Your task to perform on an android device: open device folders in google photos Image 0: 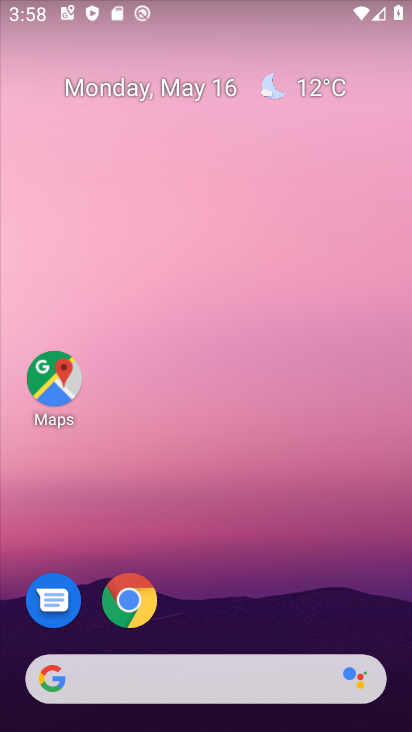
Step 0: drag from (220, 661) to (251, 302)
Your task to perform on an android device: open device folders in google photos Image 1: 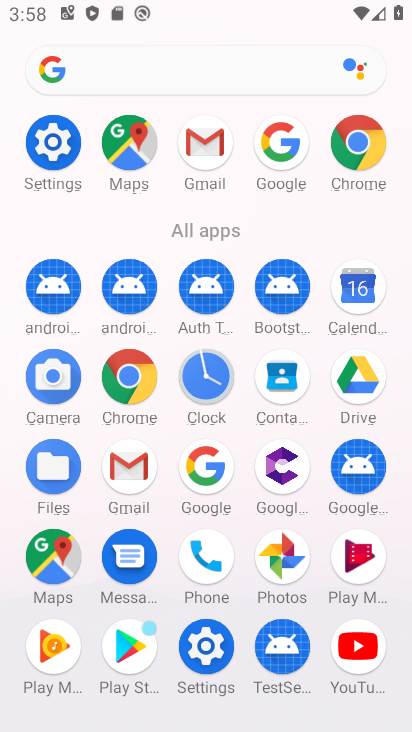
Step 1: click (293, 556)
Your task to perform on an android device: open device folders in google photos Image 2: 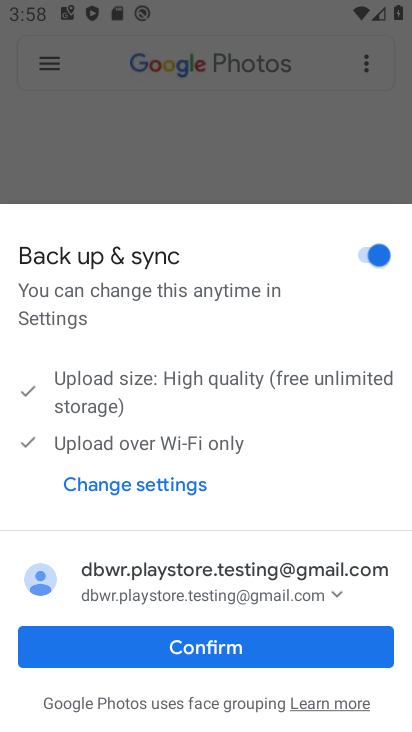
Step 2: click (59, 68)
Your task to perform on an android device: open device folders in google photos Image 3: 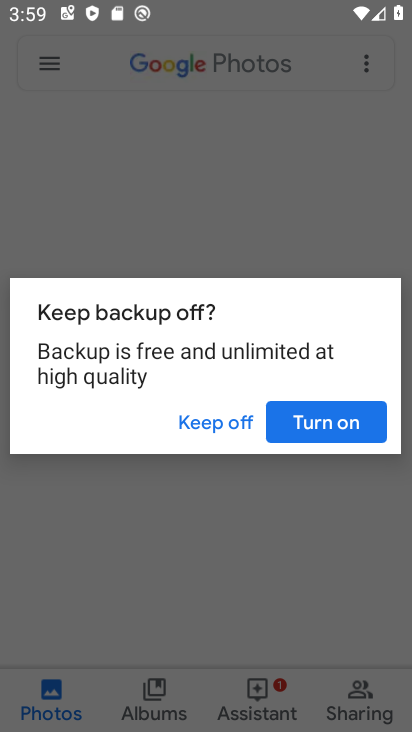
Step 3: click (293, 427)
Your task to perform on an android device: open device folders in google photos Image 4: 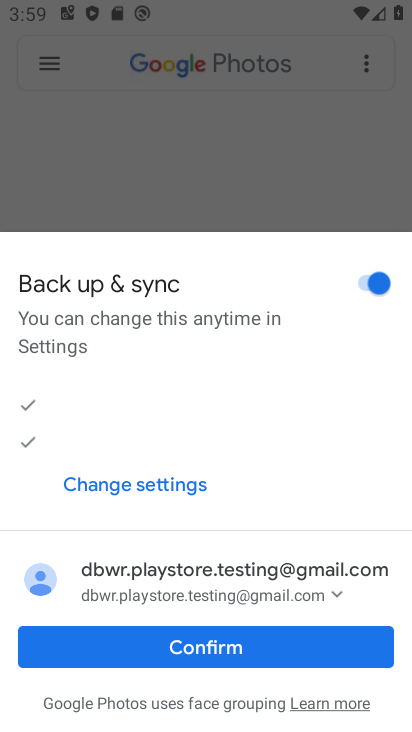
Step 4: click (47, 71)
Your task to perform on an android device: open device folders in google photos Image 5: 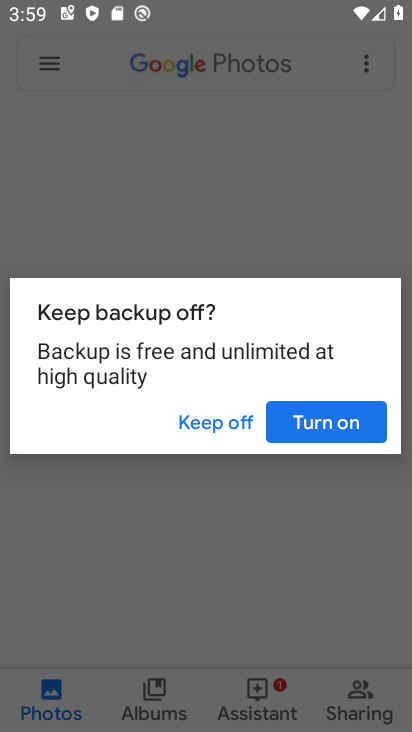
Step 5: click (301, 411)
Your task to perform on an android device: open device folders in google photos Image 6: 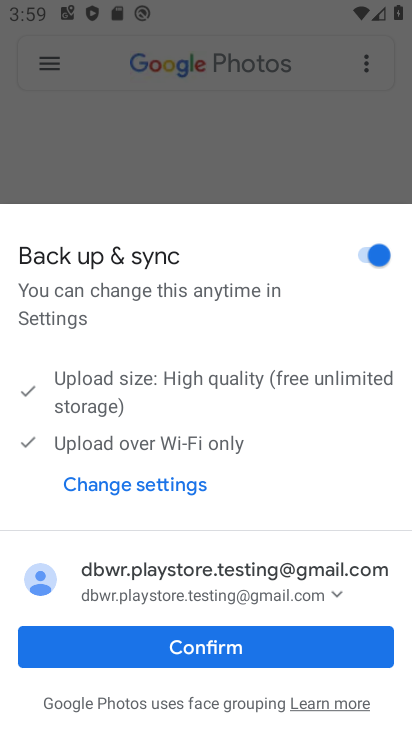
Step 6: click (185, 655)
Your task to perform on an android device: open device folders in google photos Image 7: 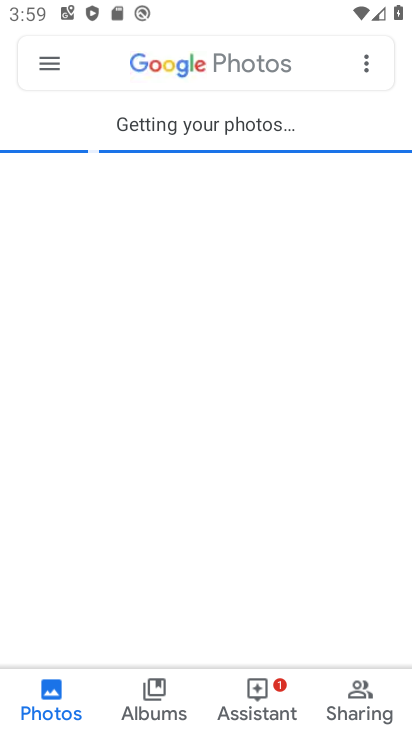
Step 7: click (42, 72)
Your task to perform on an android device: open device folders in google photos Image 8: 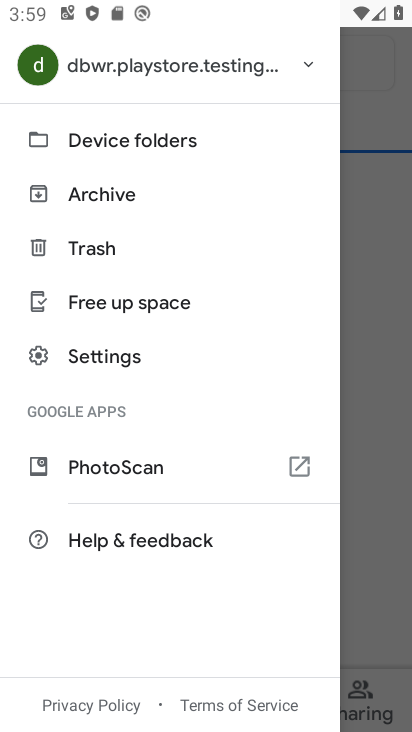
Step 8: click (97, 152)
Your task to perform on an android device: open device folders in google photos Image 9: 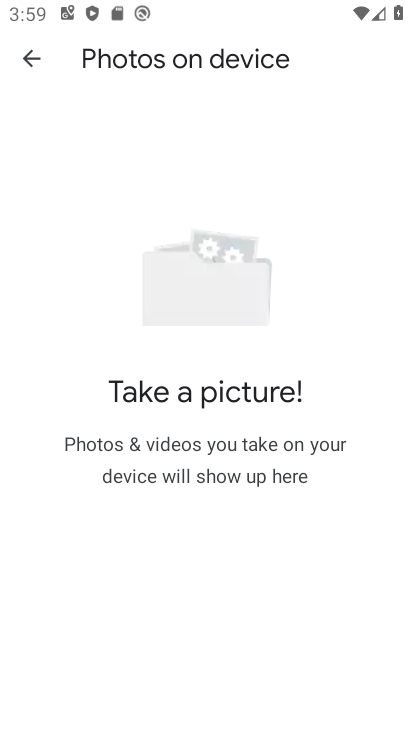
Step 9: task complete